Your task to perform on an android device: make emails show in primary in the gmail app Image 0: 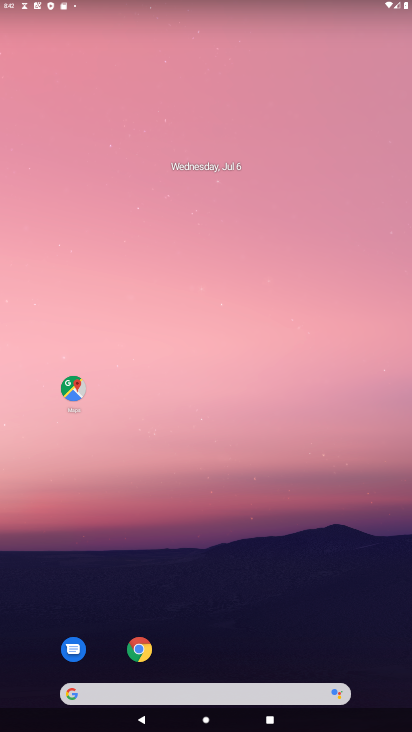
Step 0: drag from (213, 661) to (202, 110)
Your task to perform on an android device: make emails show in primary in the gmail app Image 1: 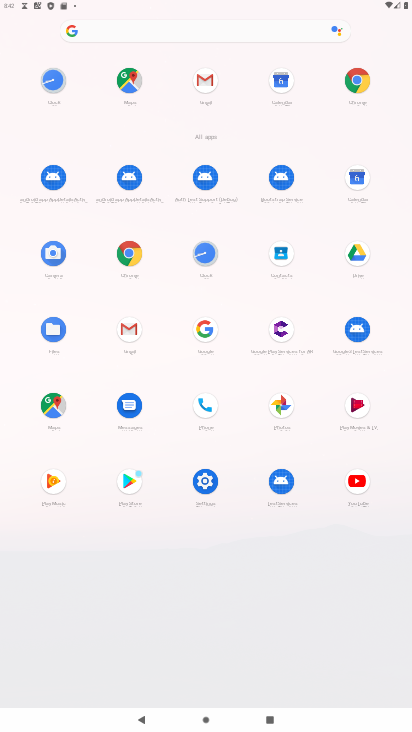
Step 1: click (203, 78)
Your task to perform on an android device: make emails show in primary in the gmail app Image 2: 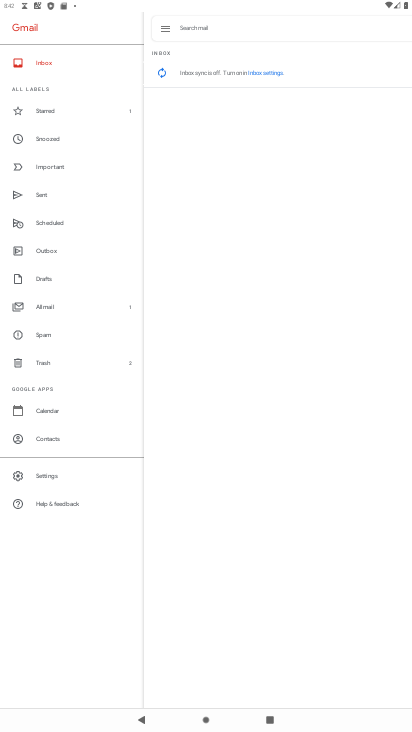
Step 2: click (63, 476)
Your task to perform on an android device: make emails show in primary in the gmail app Image 3: 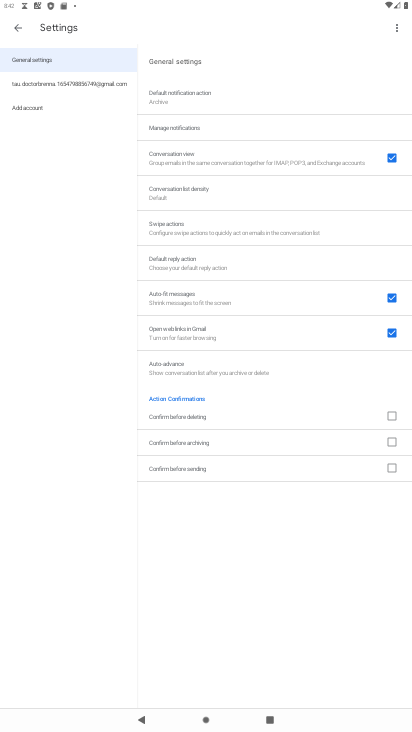
Step 3: click (46, 80)
Your task to perform on an android device: make emails show in primary in the gmail app Image 4: 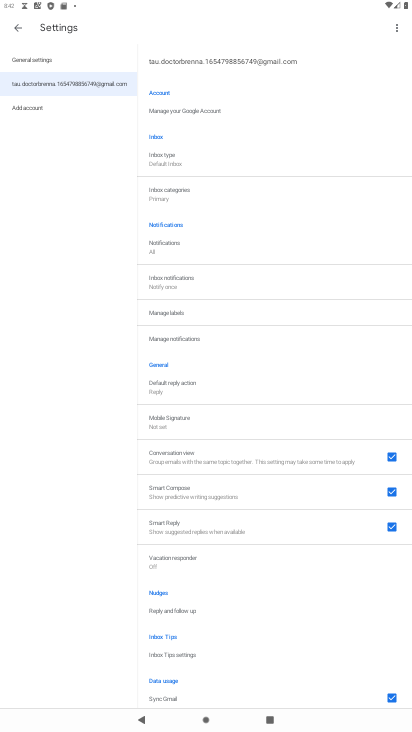
Step 4: click (197, 162)
Your task to perform on an android device: make emails show in primary in the gmail app Image 5: 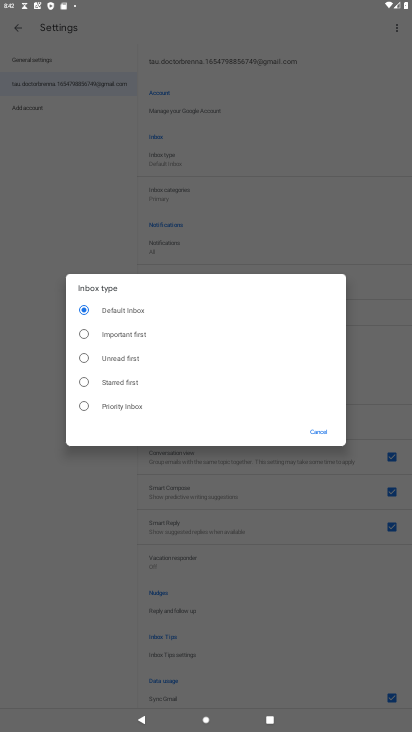
Step 5: click (116, 309)
Your task to perform on an android device: make emails show in primary in the gmail app Image 6: 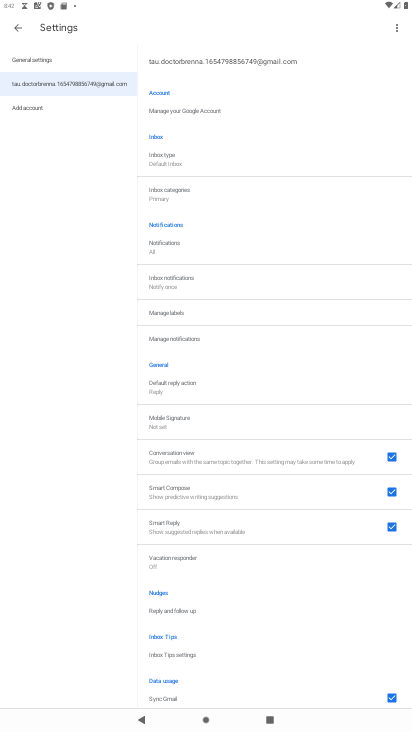
Step 6: task complete